Your task to perform on an android device: turn on showing notifications on the lock screen Image 0: 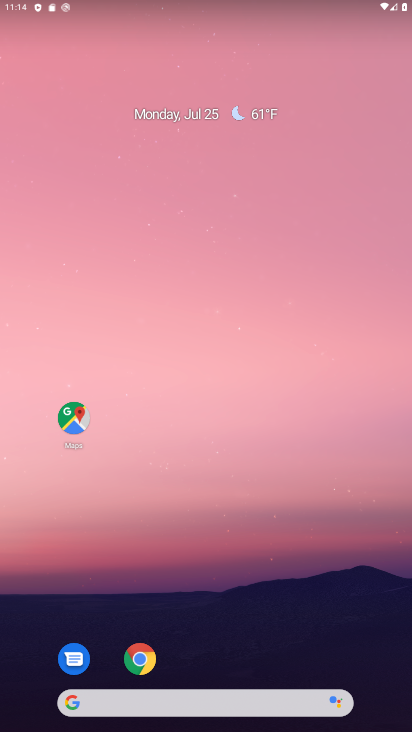
Step 0: drag from (220, 719) to (242, 111)
Your task to perform on an android device: turn on showing notifications on the lock screen Image 1: 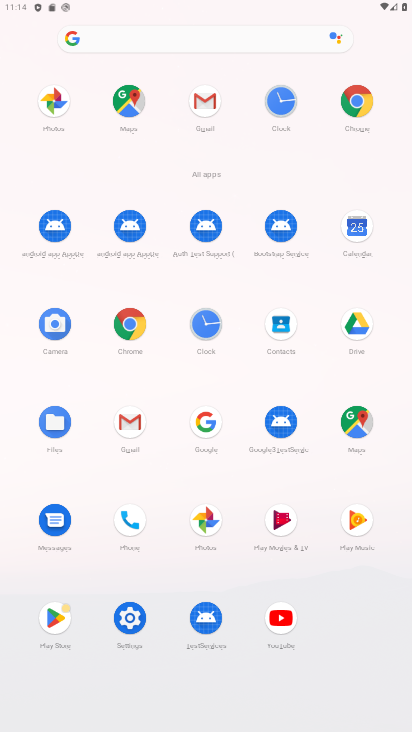
Step 1: click (136, 614)
Your task to perform on an android device: turn on showing notifications on the lock screen Image 2: 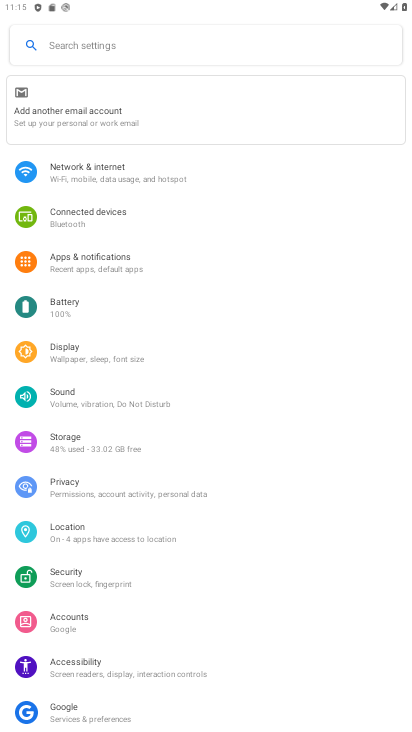
Step 2: click (92, 261)
Your task to perform on an android device: turn on showing notifications on the lock screen Image 3: 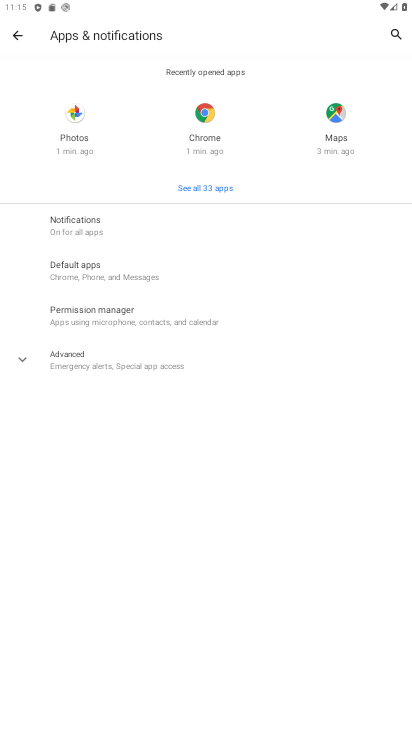
Step 3: click (72, 226)
Your task to perform on an android device: turn on showing notifications on the lock screen Image 4: 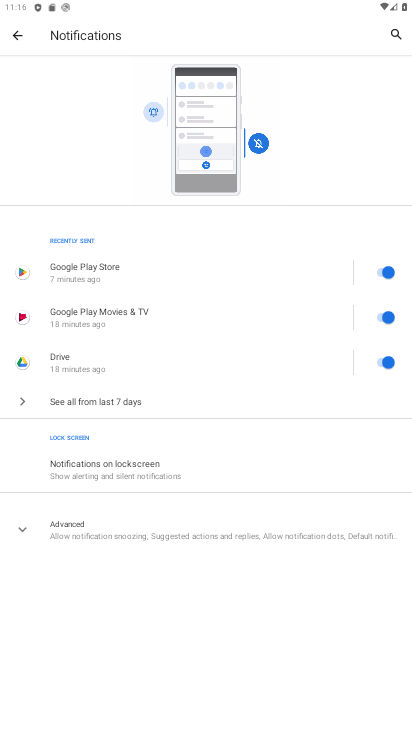
Step 4: click (113, 467)
Your task to perform on an android device: turn on showing notifications on the lock screen Image 5: 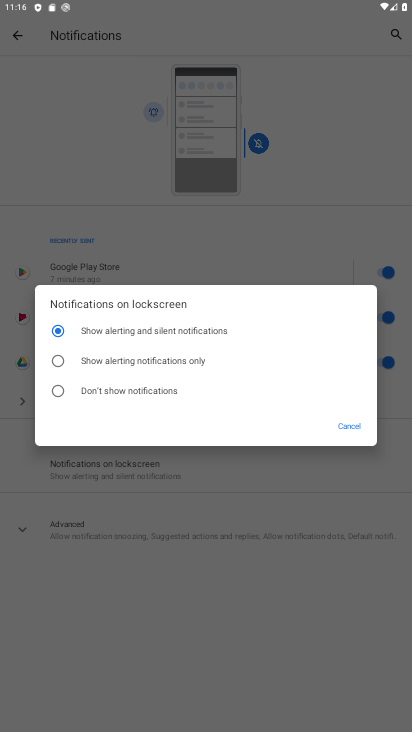
Step 5: task complete